Your task to perform on an android device: open a new tab in the chrome app Image 0: 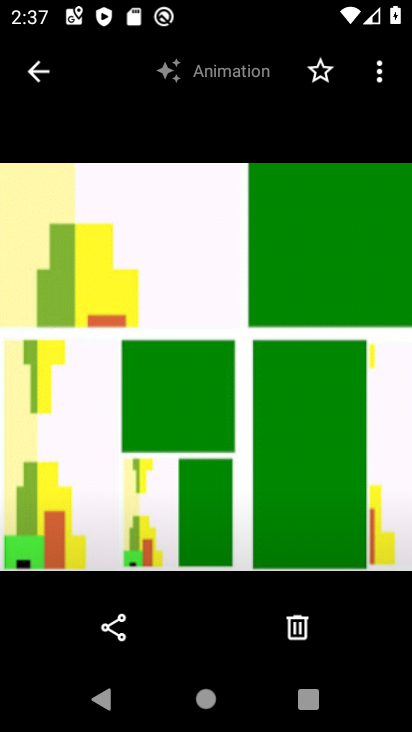
Step 0: press home button
Your task to perform on an android device: open a new tab in the chrome app Image 1: 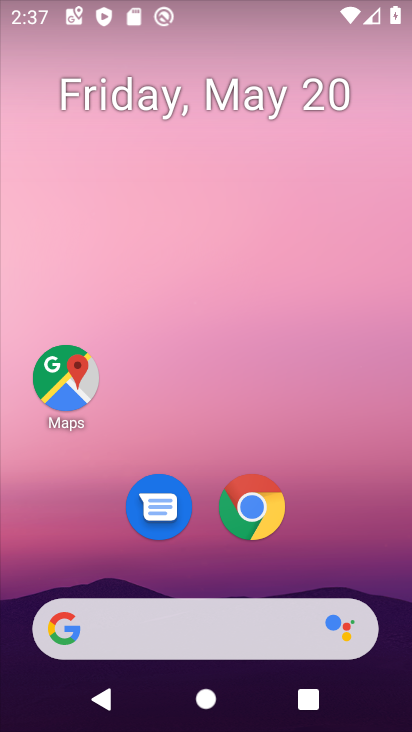
Step 1: click (245, 503)
Your task to perform on an android device: open a new tab in the chrome app Image 2: 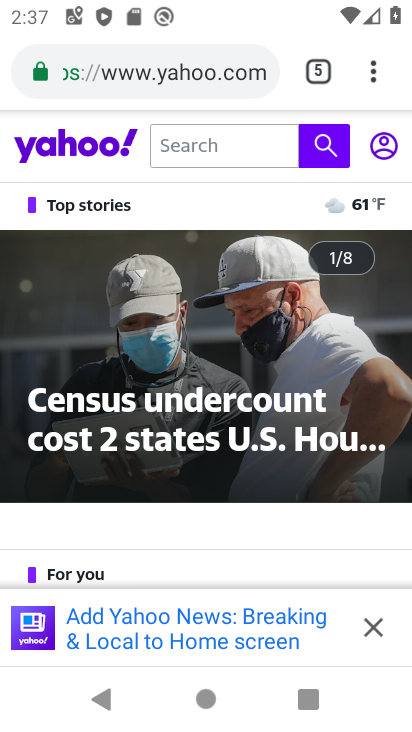
Step 2: click (377, 78)
Your task to perform on an android device: open a new tab in the chrome app Image 3: 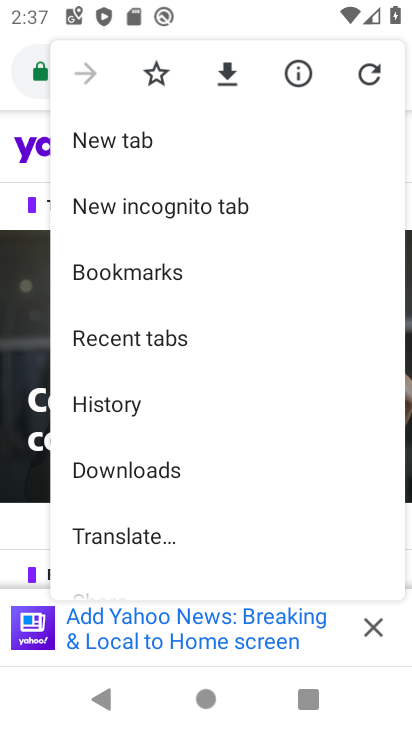
Step 3: click (137, 146)
Your task to perform on an android device: open a new tab in the chrome app Image 4: 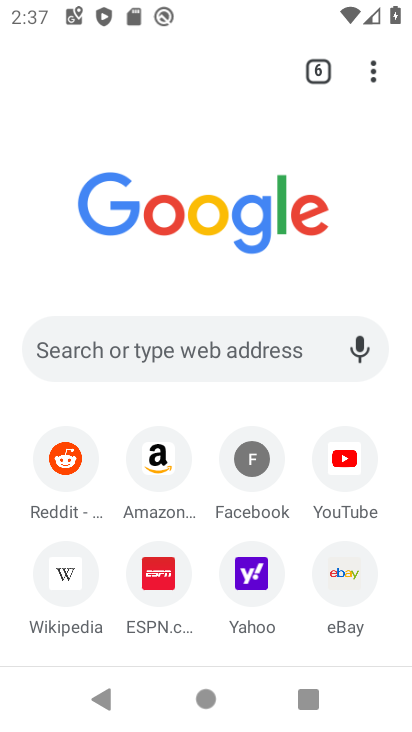
Step 4: task complete